Your task to perform on an android device: star an email in the gmail app Image 0: 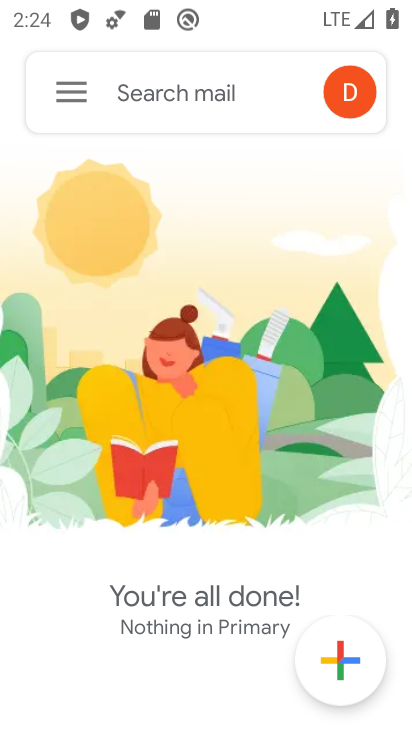
Step 0: task impossible